Your task to perform on an android device: turn off priority inbox in the gmail app Image 0: 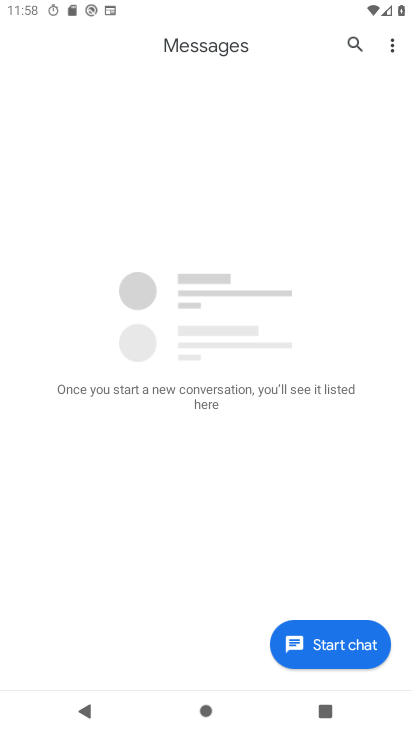
Step 0: press home button
Your task to perform on an android device: turn off priority inbox in the gmail app Image 1: 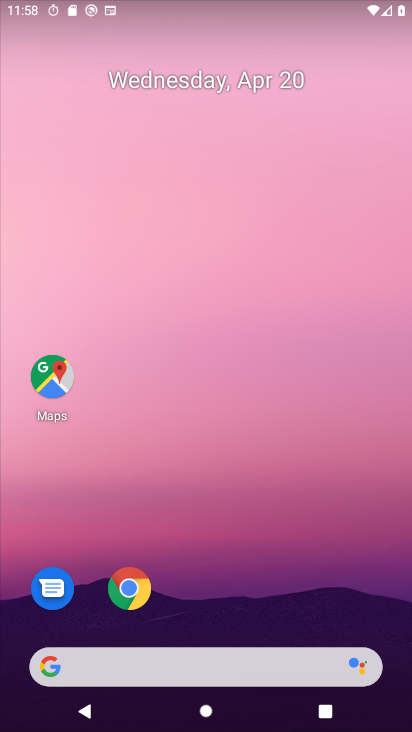
Step 1: drag from (243, 618) to (266, 30)
Your task to perform on an android device: turn off priority inbox in the gmail app Image 2: 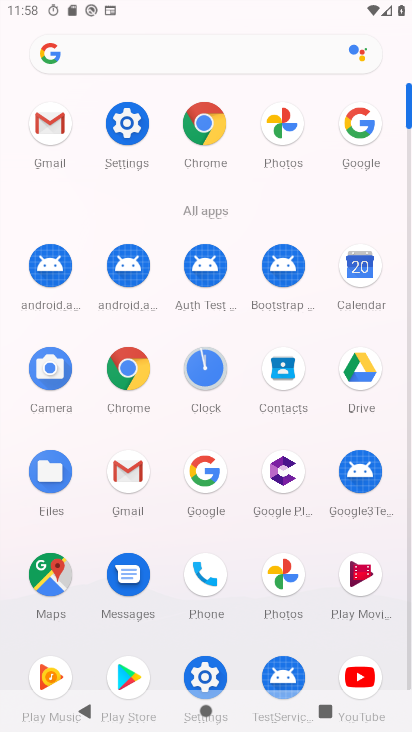
Step 2: click (122, 463)
Your task to perform on an android device: turn off priority inbox in the gmail app Image 3: 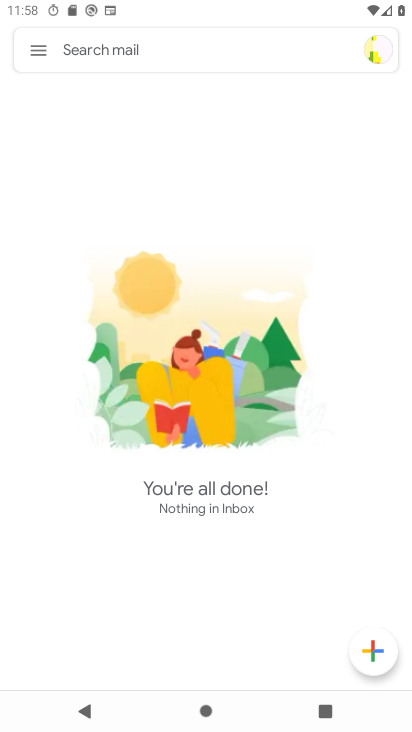
Step 3: click (36, 47)
Your task to perform on an android device: turn off priority inbox in the gmail app Image 4: 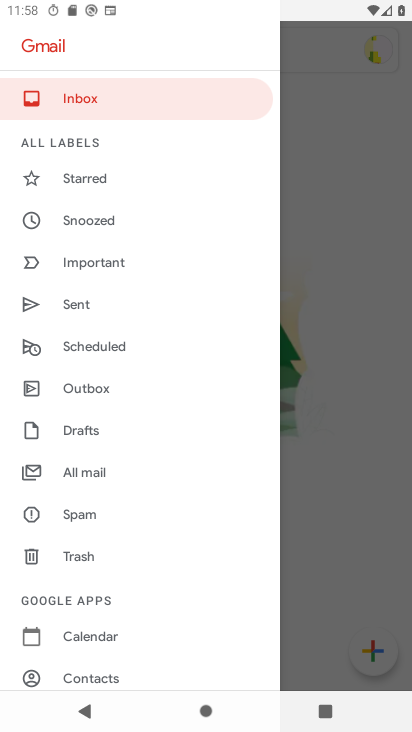
Step 4: drag from (142, 639) to (190, 180)
Your task to perform on an android device: turn off priority inbox in the gmail app Image 5: 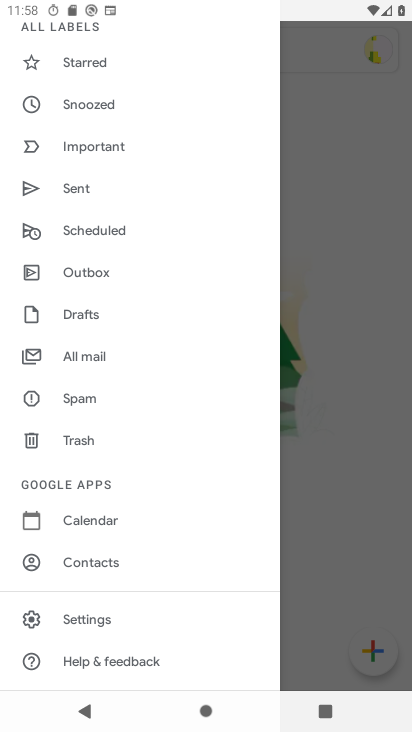
Step 5: click (119, 612)
Your task to perform on an android device: turn off priority inbox in the gmail app Image 6: 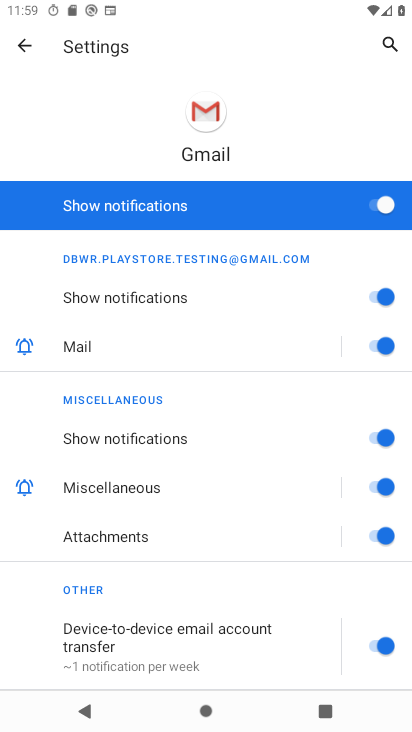
Step 6: click (378, 200)
Your task to perform on an android device: turn off priority inbox in the gmail app Image 7: 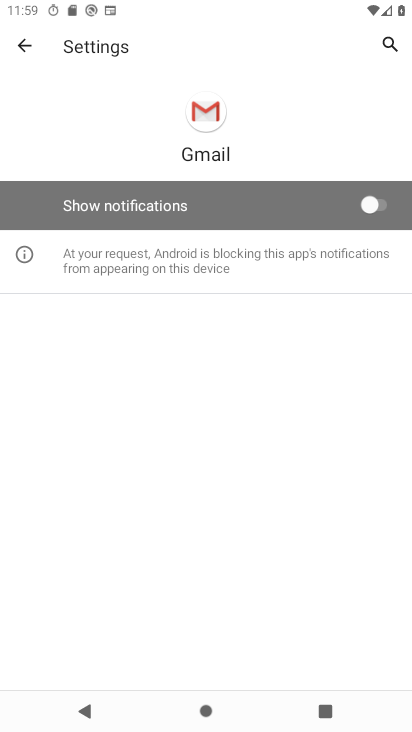
Step 7: task complete